Your task to perform on an android device: empty trash in the gmail app Image 0: 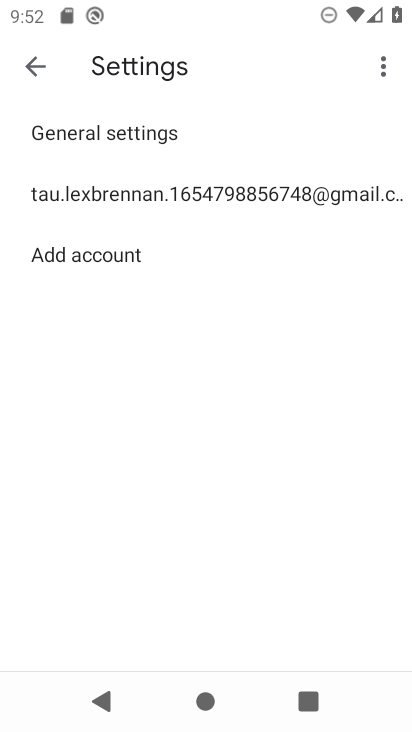
Step 0: press home button
Your task to perform on an android device: empty trash in the gmail app Image 1: 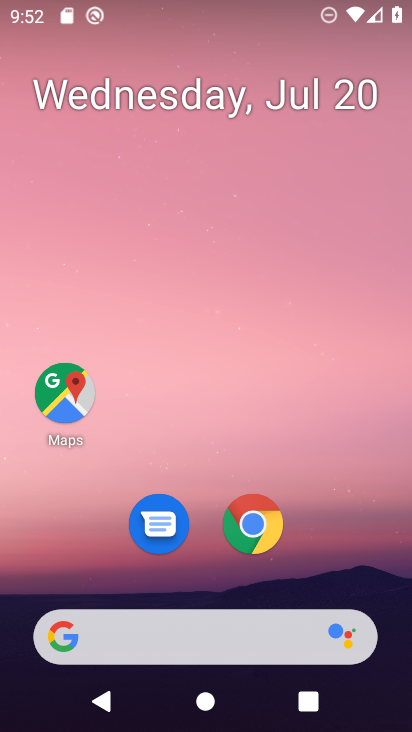
Step 1: drag from (188, 644) to (218, 43)
Your task to perform on an android device: empty trash in the gmail app Image 2: 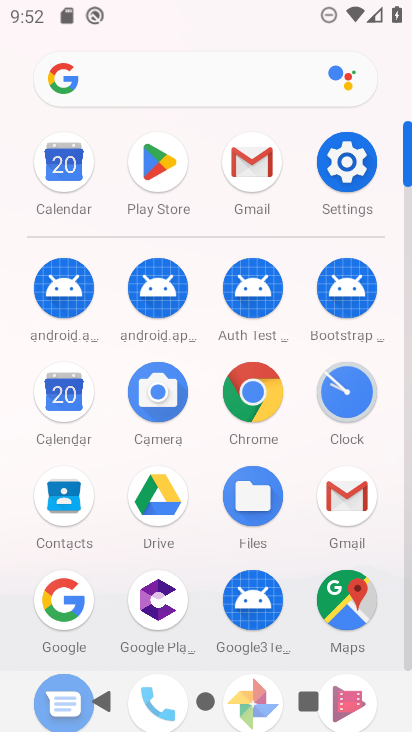
Step 2: click (253, 165)
Your task to perform on an android device: empty trash in the gmail app Image 3: 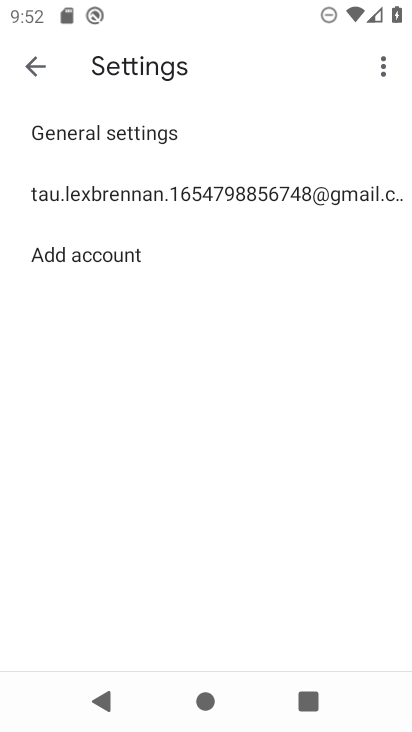
Step 3: click (35, 68)
Your task to perform on an android device: empty trash in the gmail app Image 4: 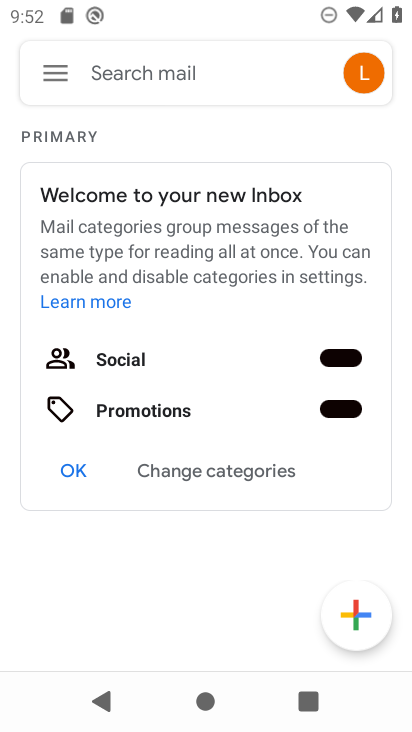
Step 4: click (60, 70)
Your task to perform on an android device: empty trash in the gmail app Image 5: 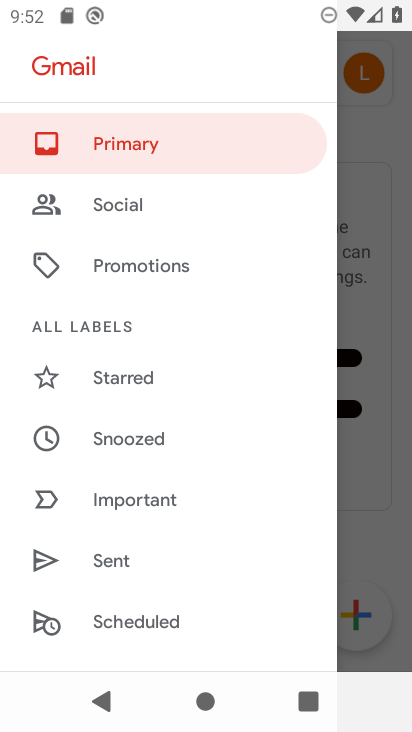
Step 5: drag from (180, 615) to (274, 110)
Your task to perform on an android device: empty trash in the gmail app Image 6: 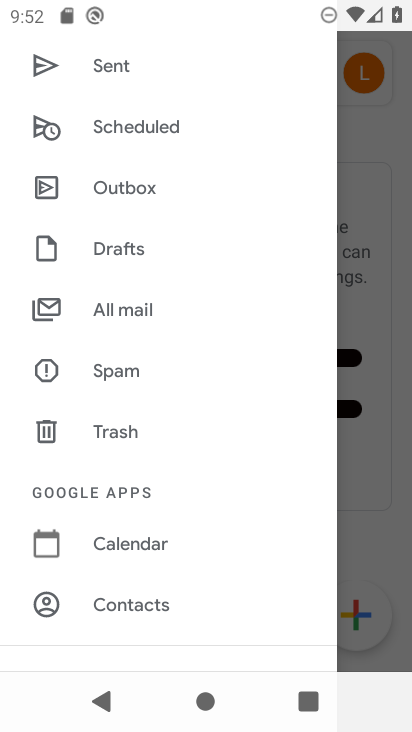
Step 6: click (116, 429)
Your task to perform on an android device: empty trash in the gmail app Image 7: 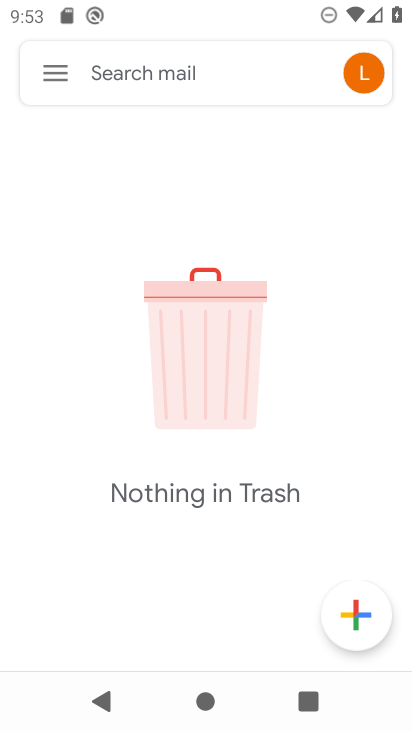
Step 7: task complete